Your task to perform on an android device: turn on priority inbox in the gmail app Image 0: 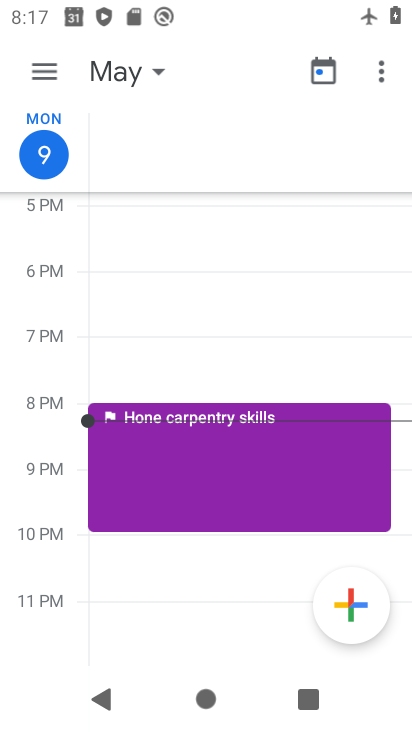
Step 0: press home button
Your task to perform on an android device: turn on priority inbox in the gmail app Image 1: 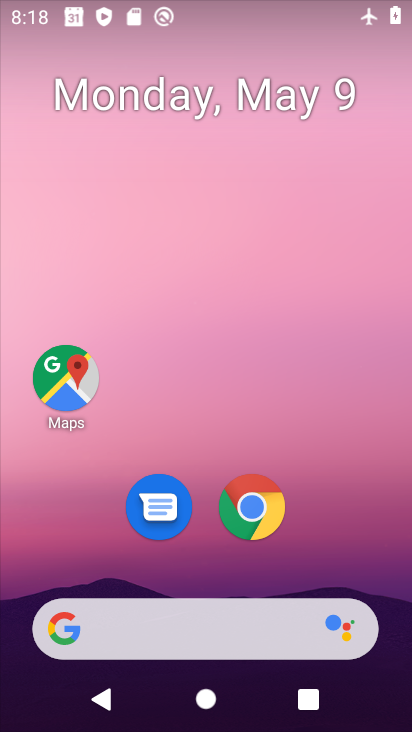
Step 1: drag from (182, 591) to (167, 0)
Your task to perform on an android device: turn on priority inbox in the gmail app Image 2: 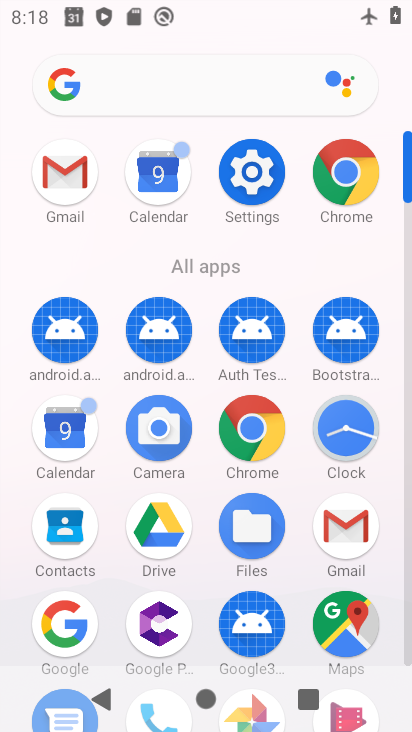
Step 2: click (328, 543)
Your task to perform on an android device: turn on priority inbox in the gmail app Image 3: 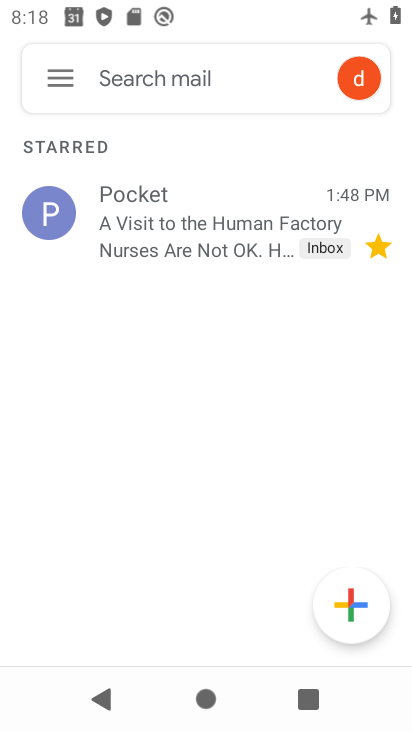
Step 3: click (52, 74)
Your task to perform on an android device: turn on priority inbox in the gmail app Image 4: 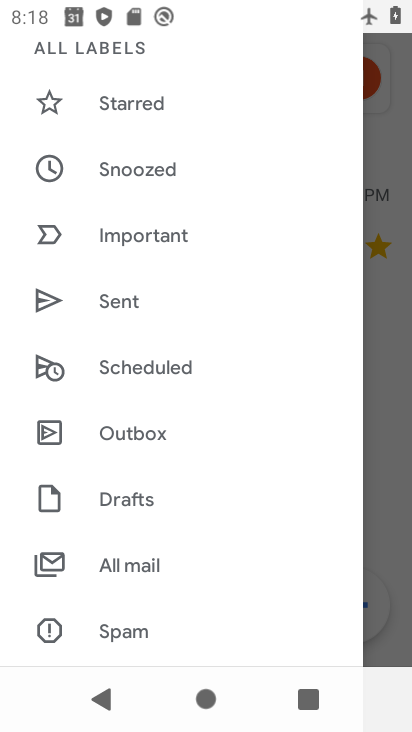
Step 4: drag from (154, 640) to (104, 12)
Your task to perform on an android device: turn on priority inbox in the gmail app Image 5: 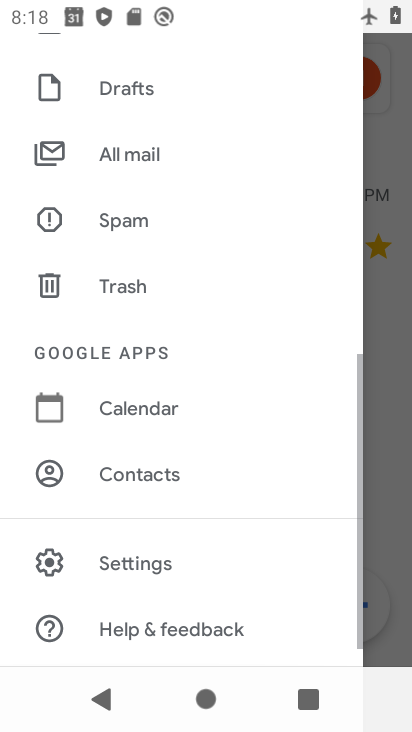
Step 5: click (86, 561)
Your task to perform on an android device: turn on priority inbox in the gmail app Image 6: 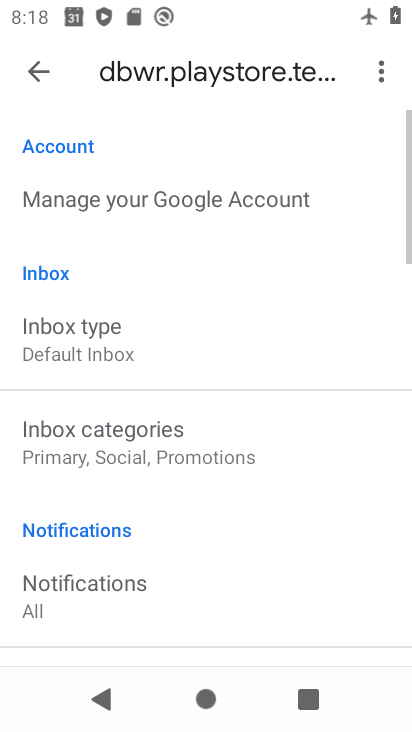
Step 6: click (126, 363)
Your task to perform on an android device: turn on priority inbox in the gmail app Image 7: 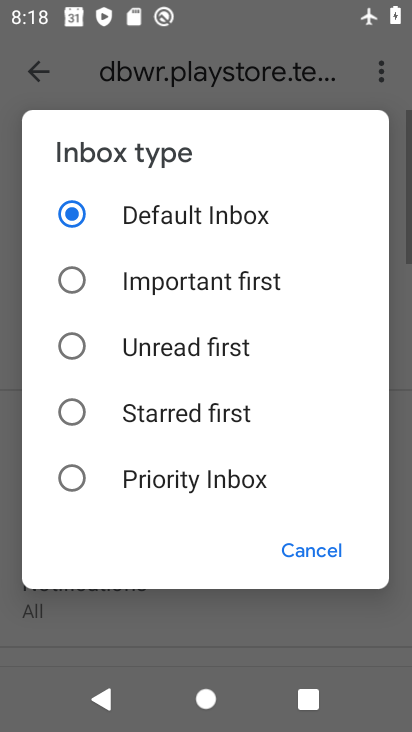
Step 7: click (160, 482)
Your task to perform on an android device: turn on priority inbox in the gmail app Image 8: 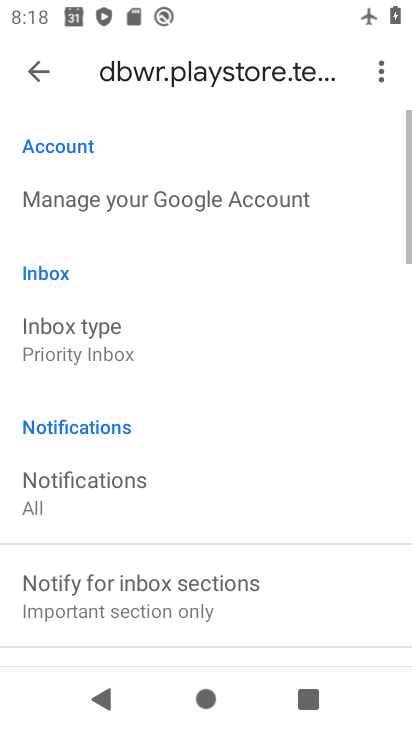
Step 8: task complete